Your task to perform on an android device: Open accessibility settings Image 0: 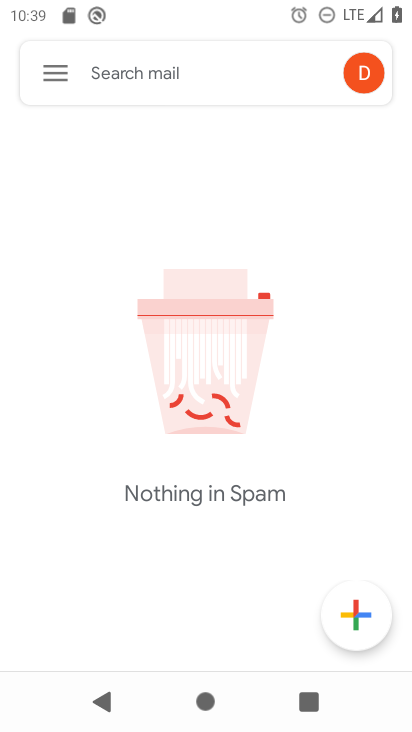
Step 0: press home button
Your task to perform on an android device: Open accessibility settings Image 1: 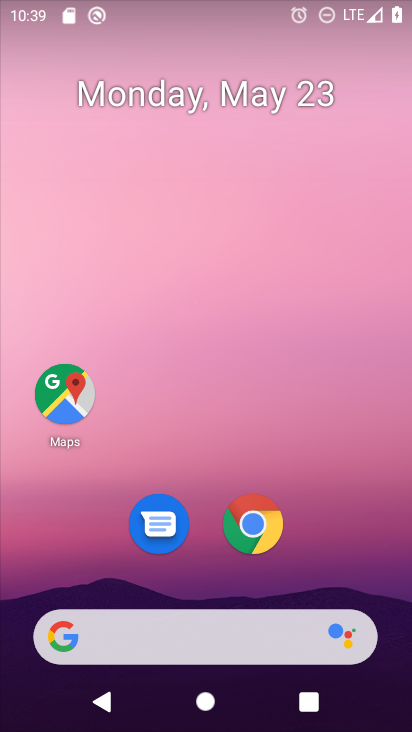
Step 1: drag from (205, 492) to (216, 33)
Your task to perform on an android device: Open accessibility settings Image 2: 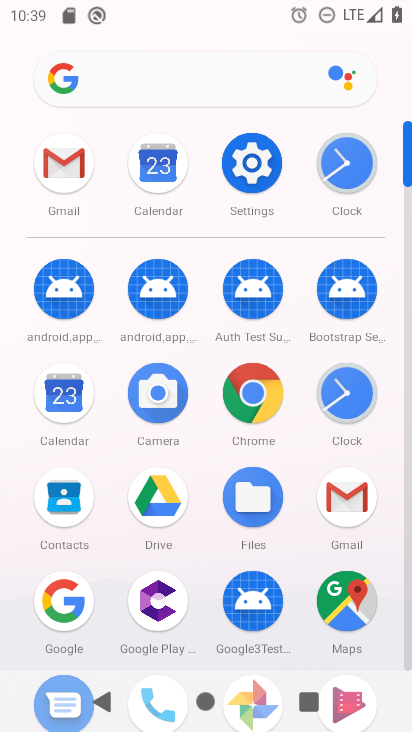
Step 2: click (238, 160)
Your task to perform on an android device: Open accessibility settings Image 3: 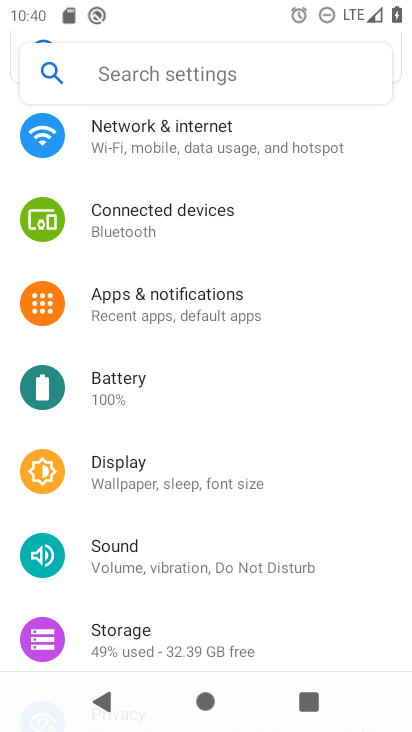
Step 3: drag from (166, 414) to (145, 152)
Your task to perform on an android device: Open accessibility settings Image 4: 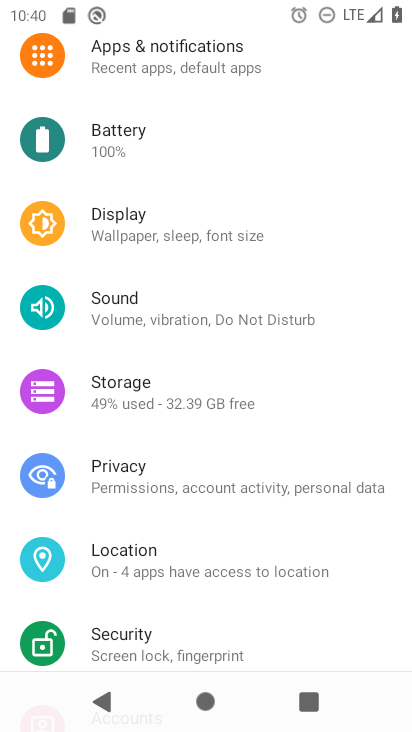
Step 4: drag from (214, 427) to (233, 157)
Your task to perform on an android device: Open accessibility settings Image 5: 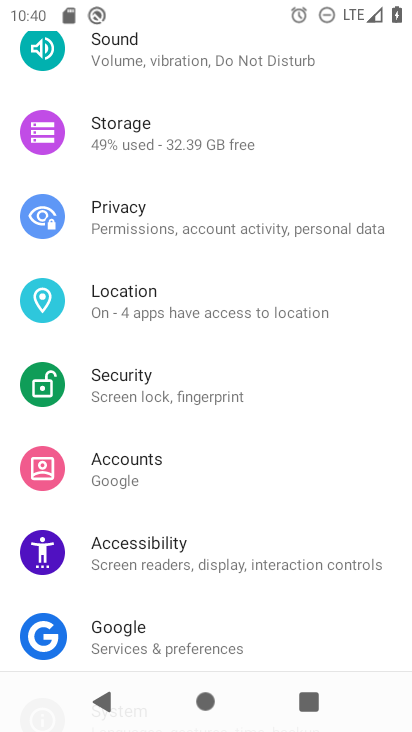
Step 5: click (223, 551)
Your task to perform on an android device: Open accessibility settings Image 6: 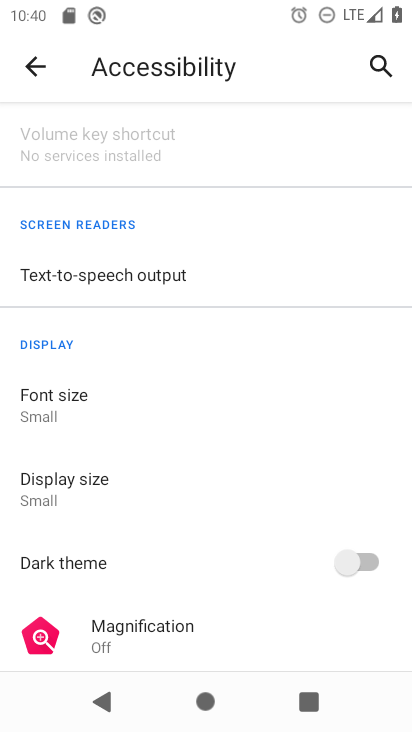
Step 6: task complete